Your task to perform on an android device: open app "Gmail" Image 0: 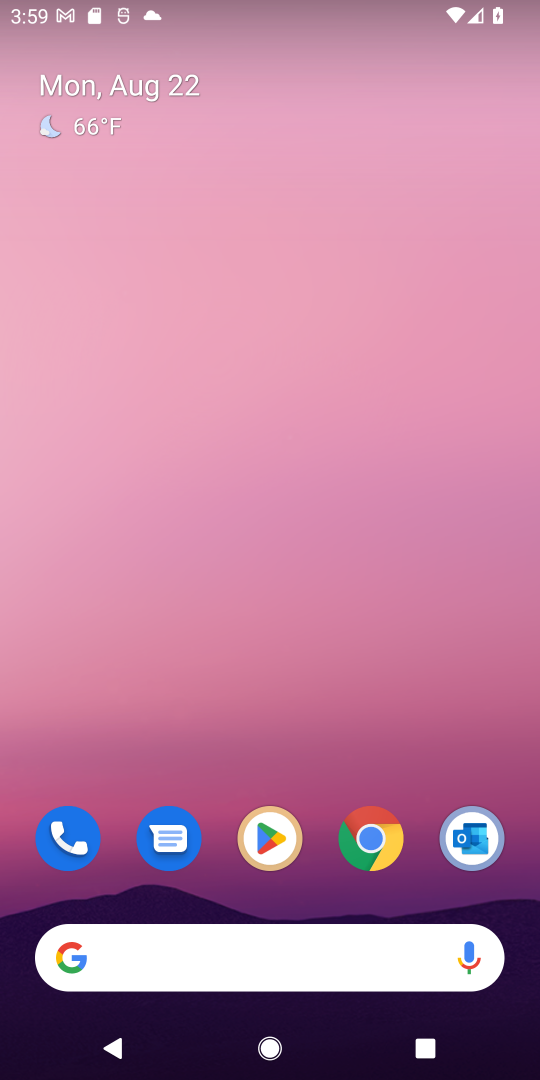
Step 0: click (262, 828)
Your task to perform on an android device: open app "Gmail" Image 1: 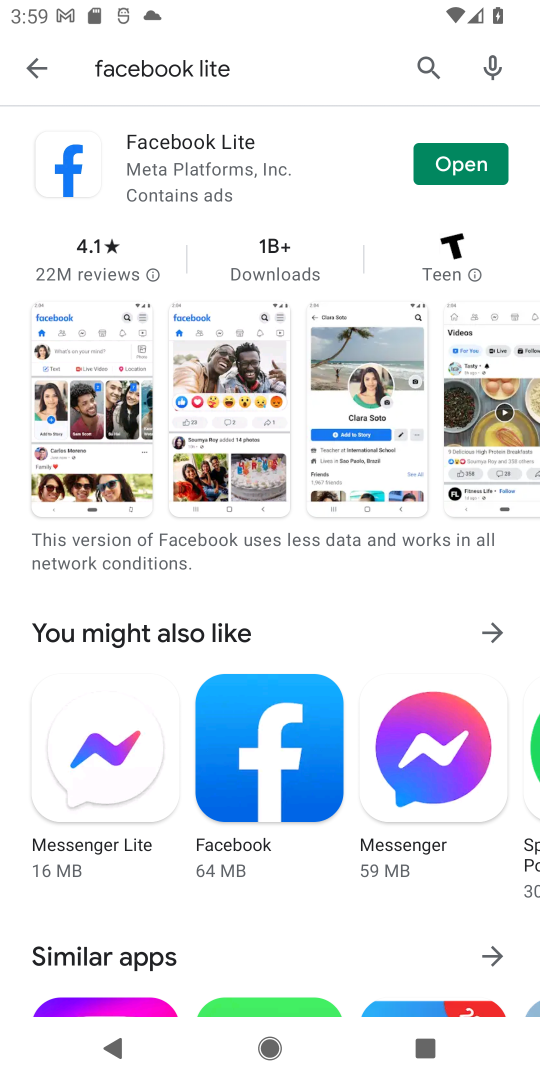
Step 1: click (425, 66)
Your task to perform on an android device: open app "Gmail" Image 2: 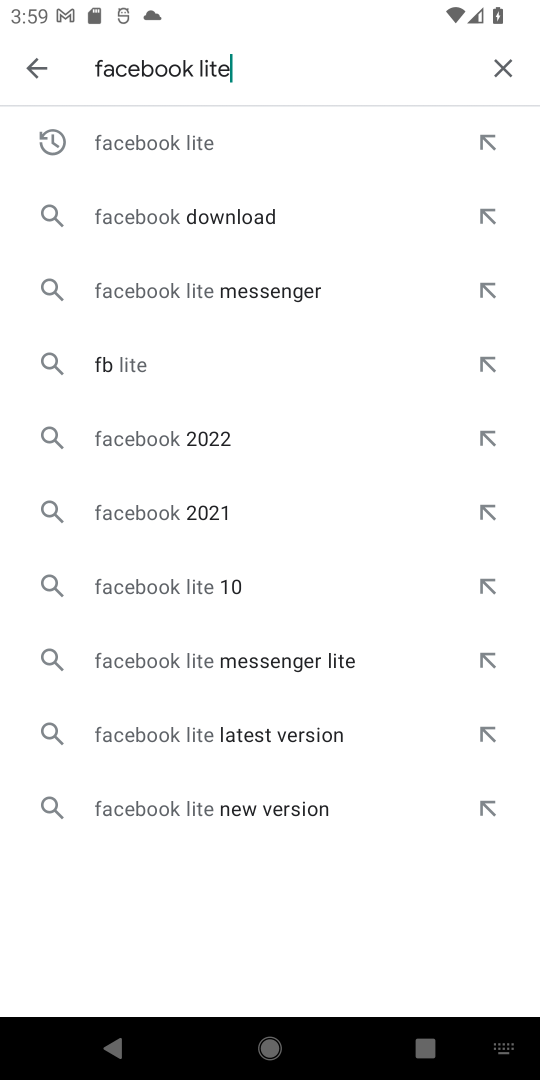
Step 2: click (500, 71)
Your task to perform on an android device: open app "Gmail" Image 3: 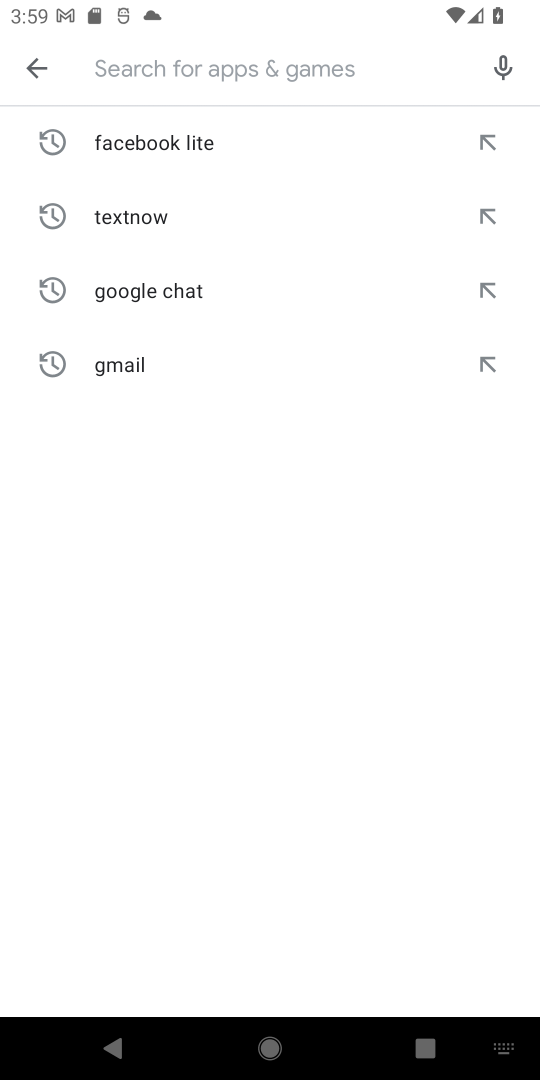
Step 3: click (152, 354)
Your task to perform on an android device: open app "Gmail" Image 4: 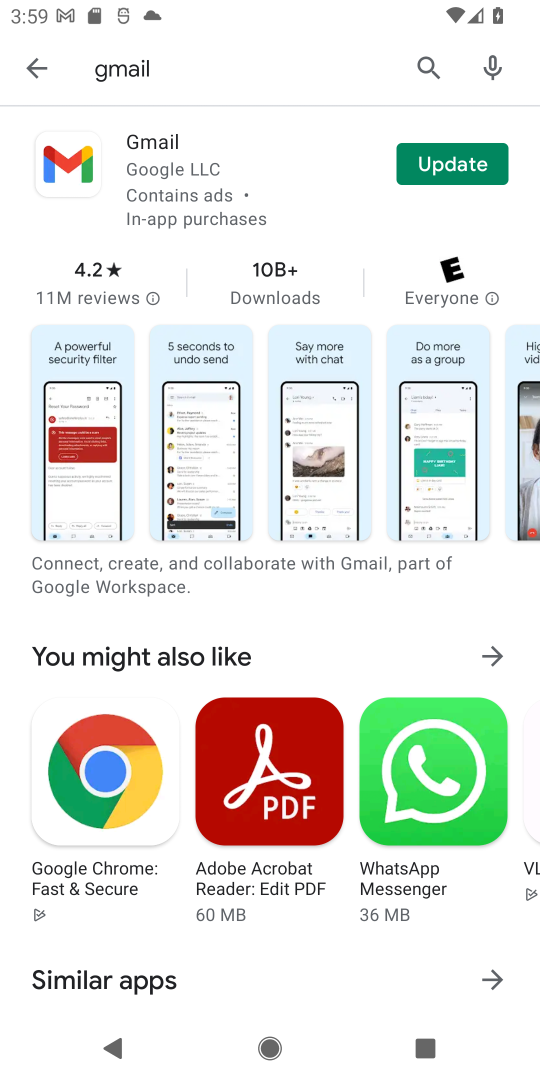
Step 4: click (204, 178)
Your task to perform on an android device: open app "Gmail" Image 5: 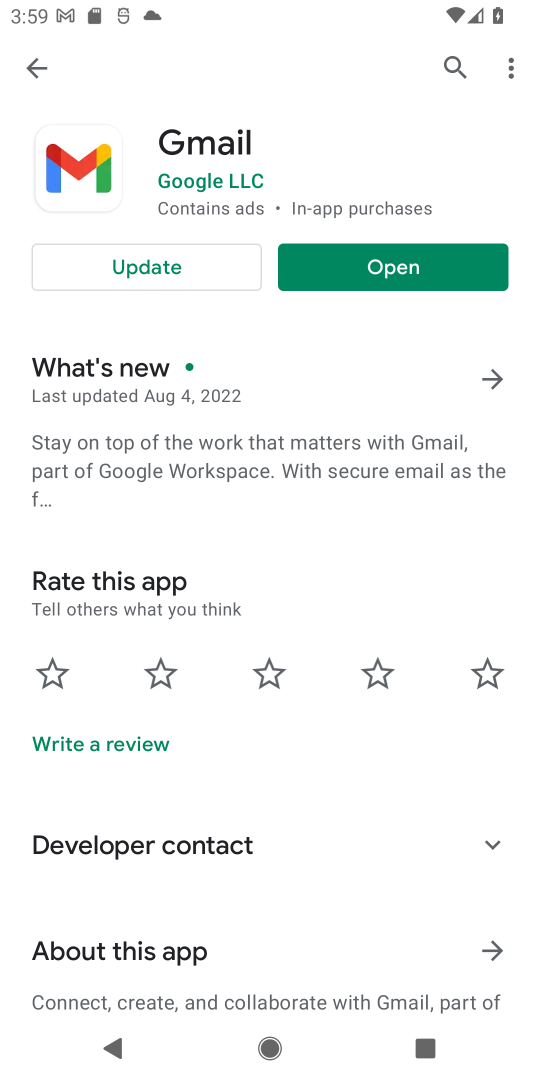
Step 5: click (362, 271)
Your task to perform on an android device: open app "Gmail" Image 6: 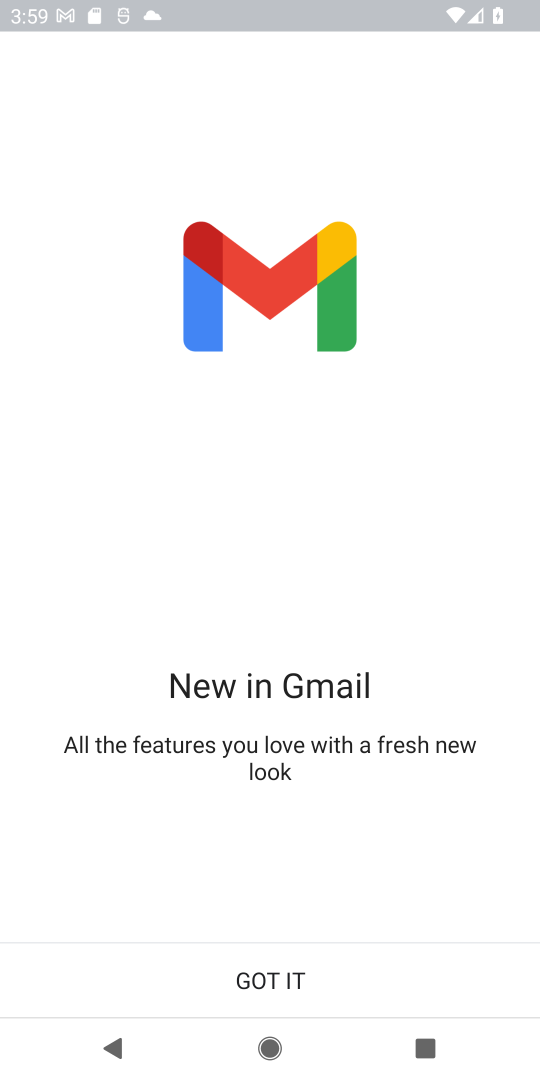
Step 6: click (250, 983)
Your task to perform on an android device: open app "Gmail" Image 7: 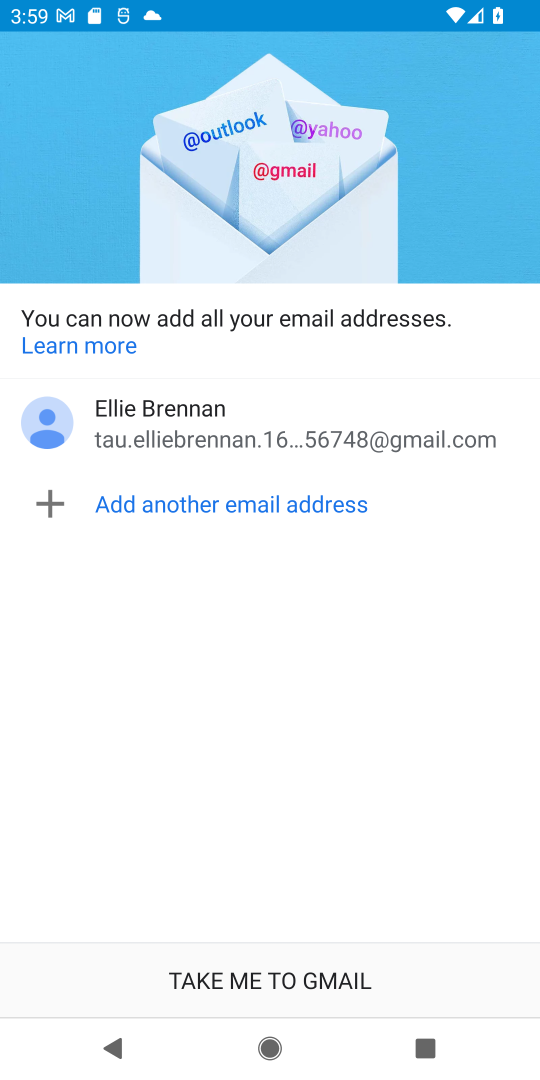
Step 7: task complete